Your task to perform on an android device: Go to Wikipedia Image 0: 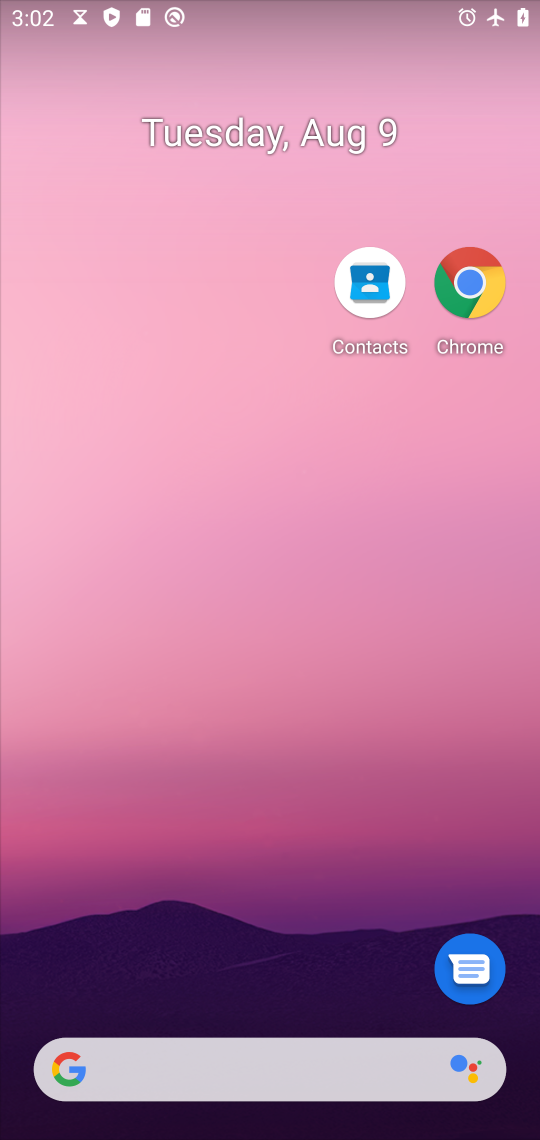
Step 0: drag from (271, 990) to (328, 412)
Your task to perform on an android device: Go to Wikipedia Image 1: 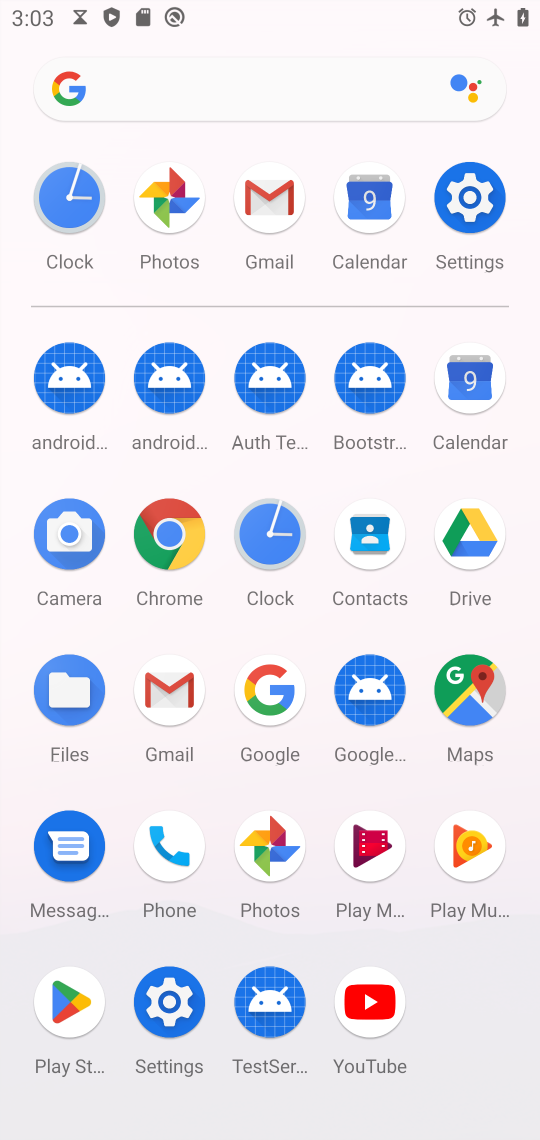
Step 1: drag from (228, 560) to (324, 3)
Your task to perform on an android device: Go to Wikipedia Image 2: 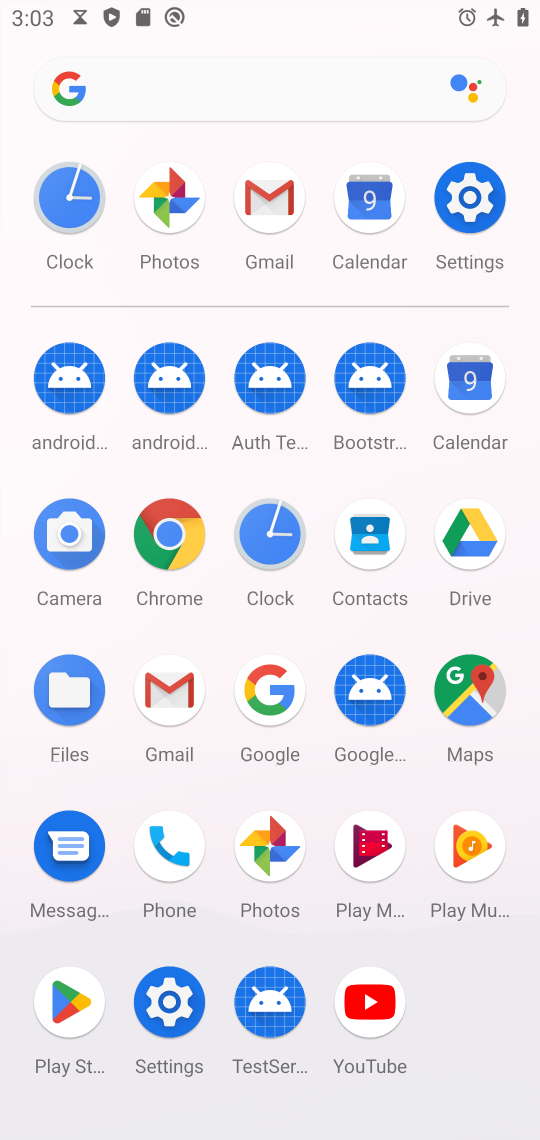
Step 2: click (152, 532)
Your task to perform on an android device: Go to Wikipedia Image 3: 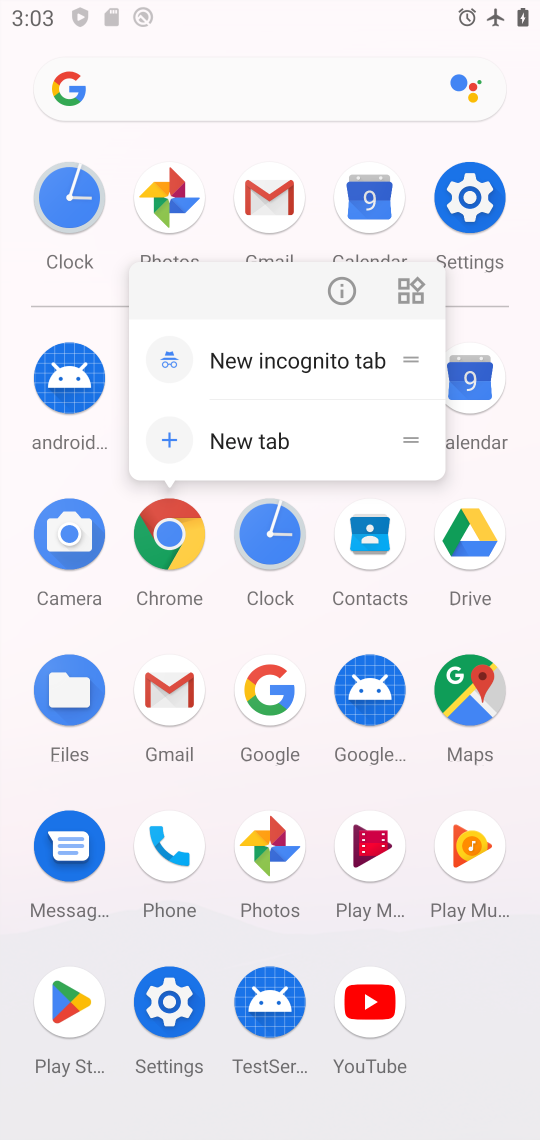
Step 3: click (345, 293)
Your task to perform on an android device: Go to Wikipedia Image 4: 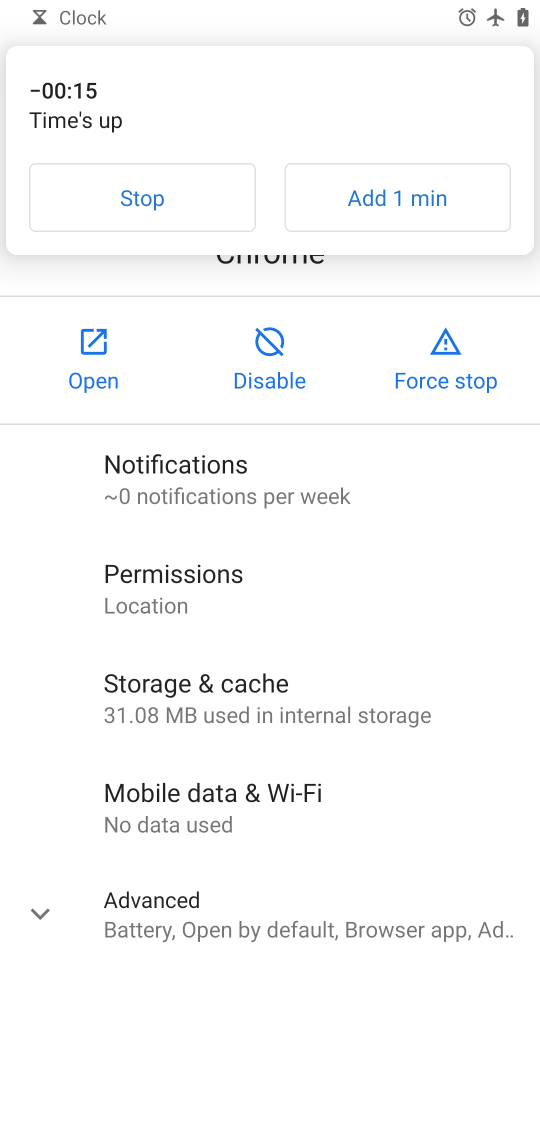
Step 4: click (193, 198)
Your task to perform on an android device: Go to Wikipedia Image 5: 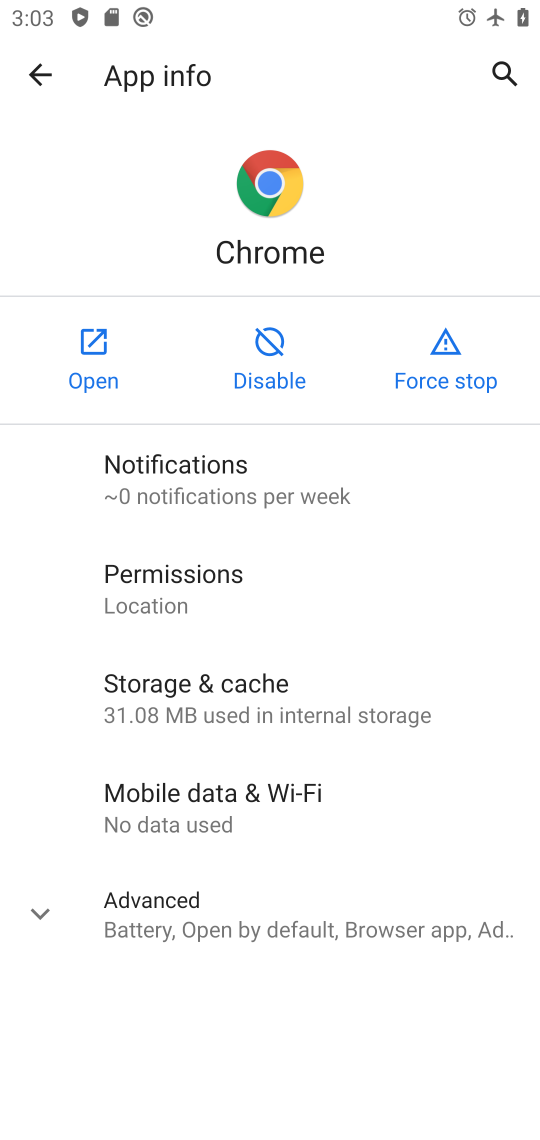
Step 5: click (106, 343)
Your task to perform on an android device: Go to Wikipedia Image 6: 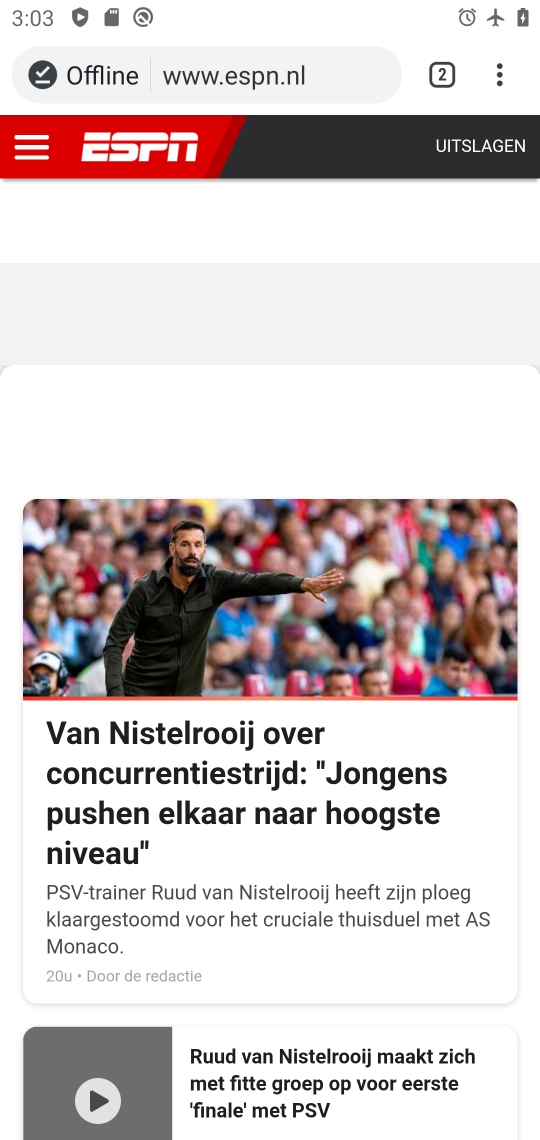
Step 6: click (290, 90)
Your task to perform on an android device: Go to Wikipedia Image 7: 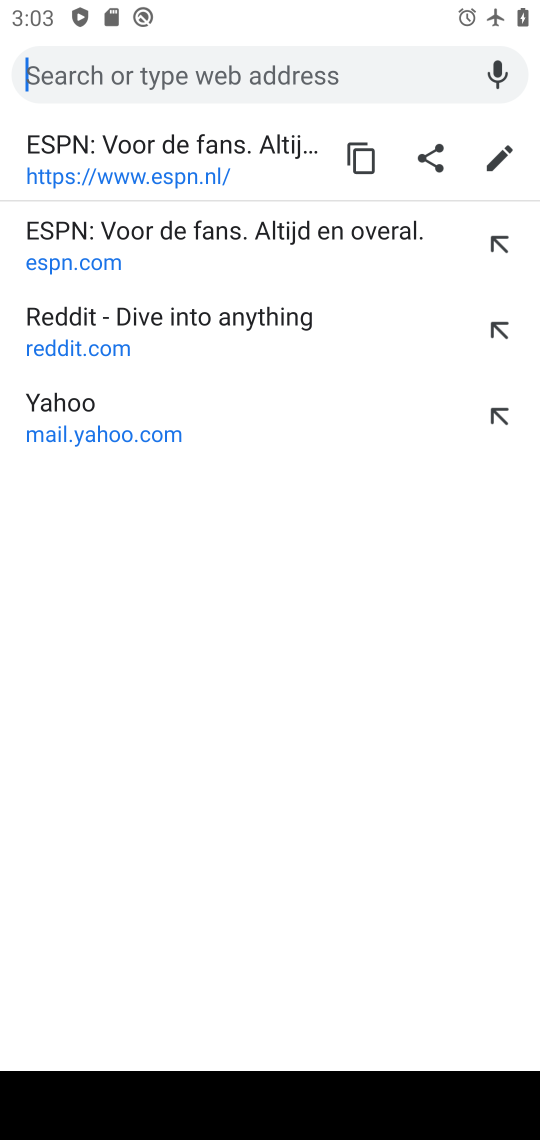
Step 7: type "Wikipedia"
Your task to perform on an android device: Go to Wikipedia Image 8: 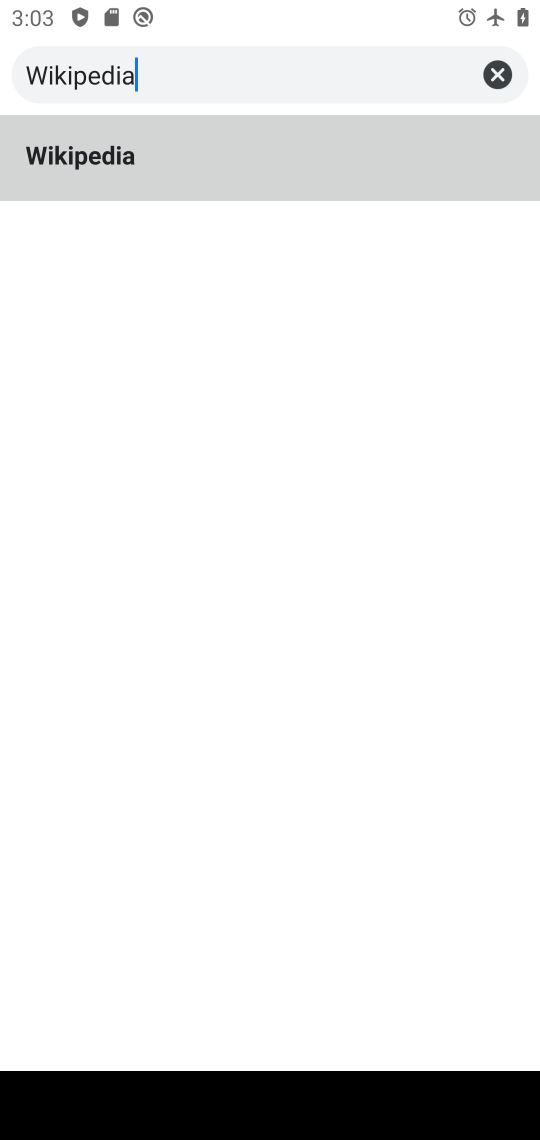
Step 8: type ""
Your task to perform on an android device: Go to Wikipedia Image 9: 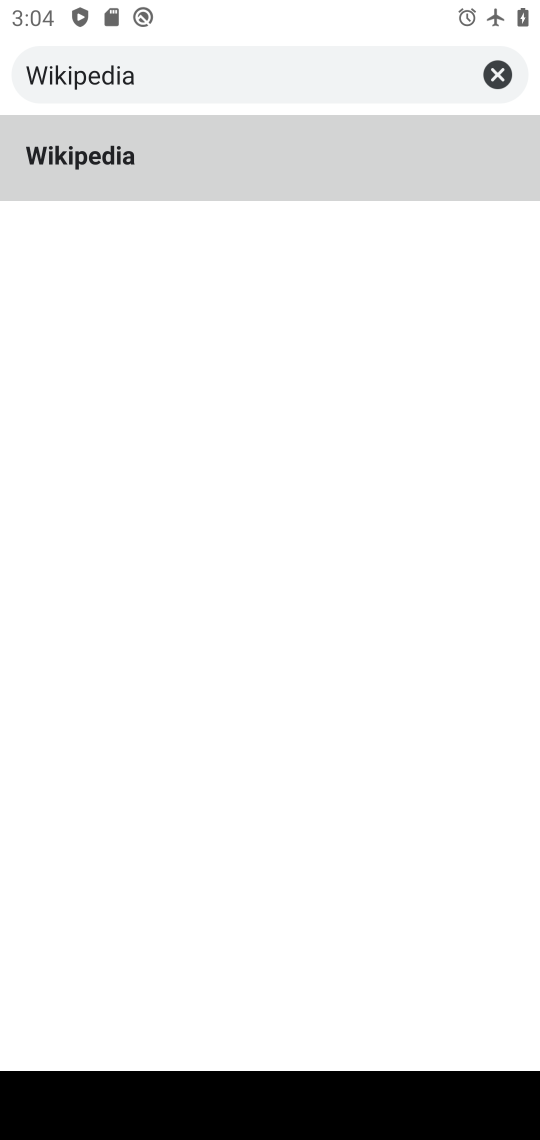
Step 9: click (97, 151)
Your task to perform on an android device: Go to Wikipedia Image 10: 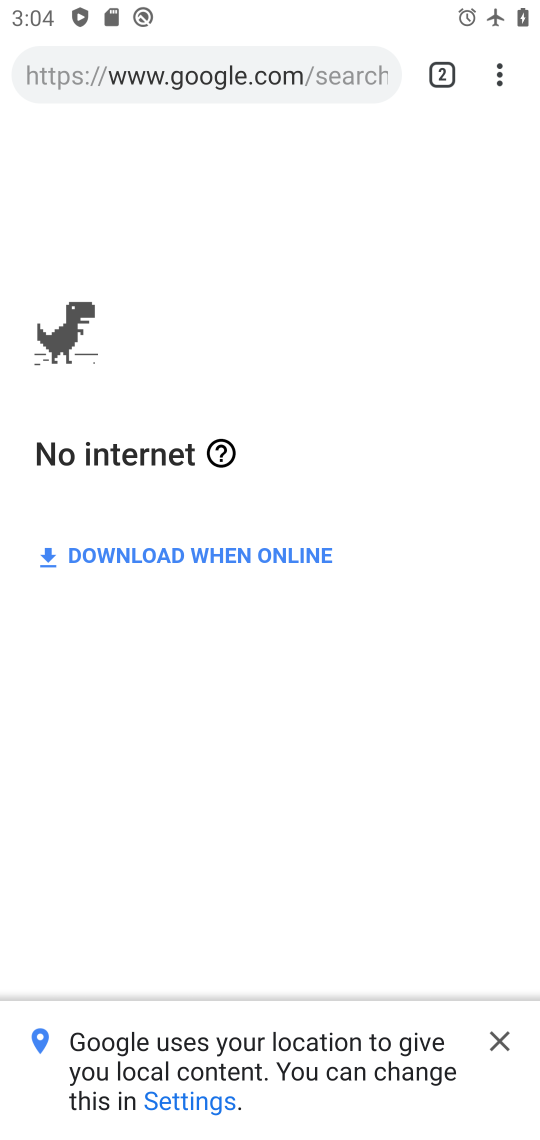
Step 10: click (228, 87)
Your task to perform on an android device: Go to Wikipedia Image 11: 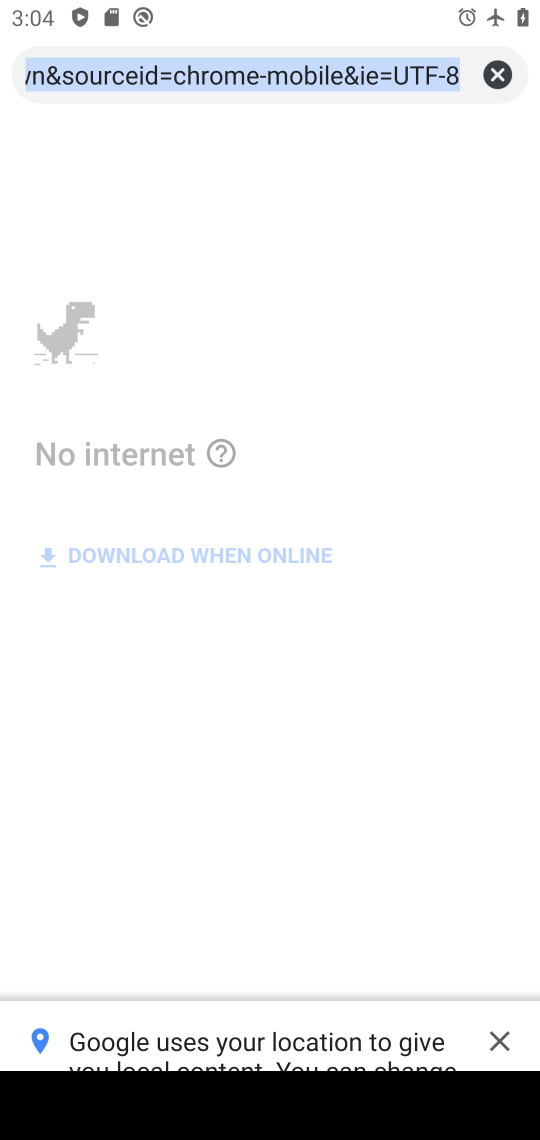
Step 11: click (502, 73)
Your task to perform on an android device: Go to Wikipedia Image 12: 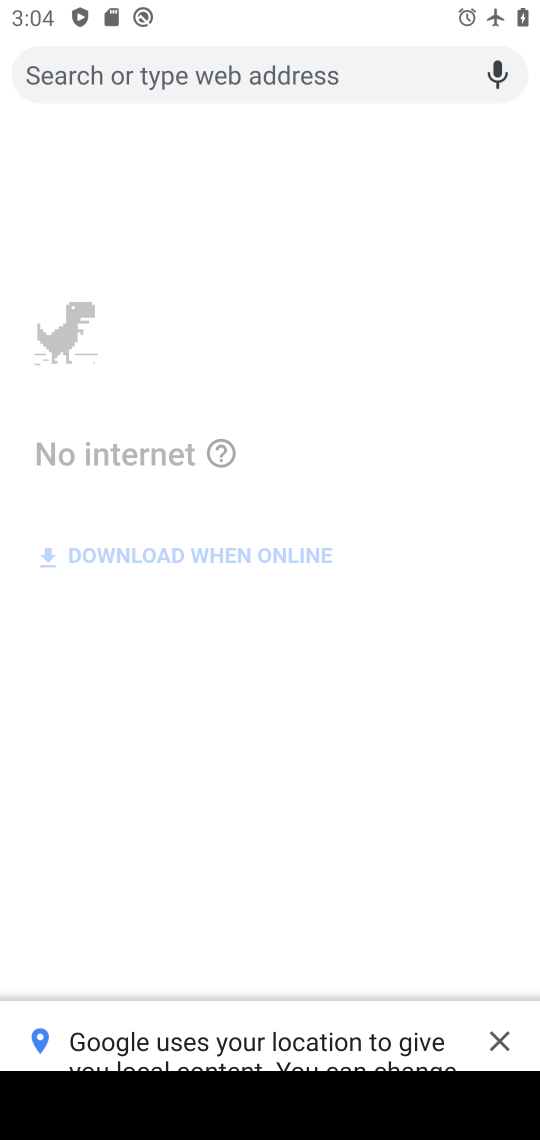
Step 12: type "wikipedia"
Your task to perform on an android device: Go to Wikipedia Image 13: 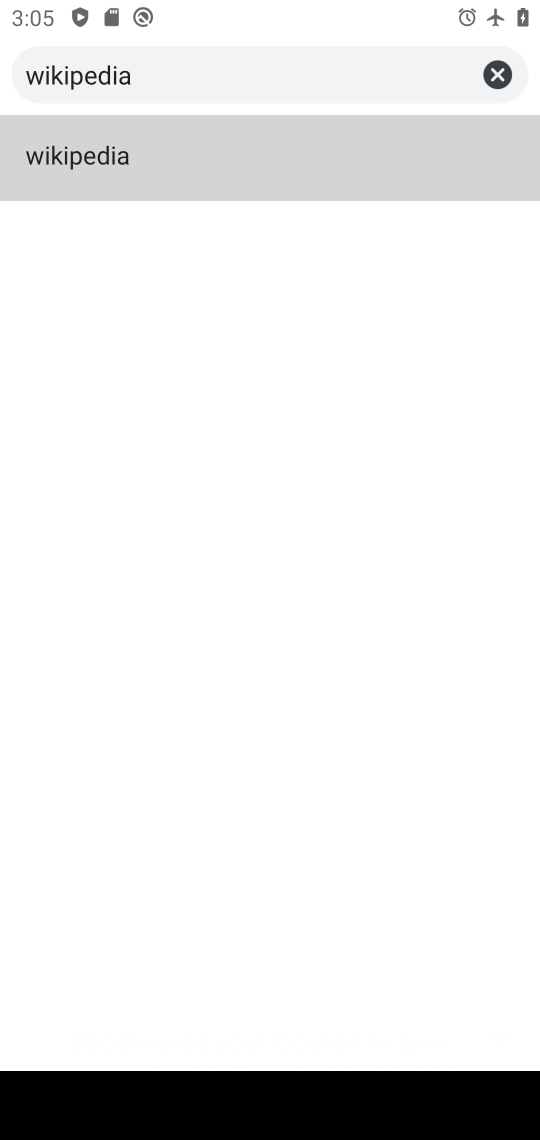
Step 13: click (73, 138)
Your task to perform on an android device: Go to Wikipedia Image 14: 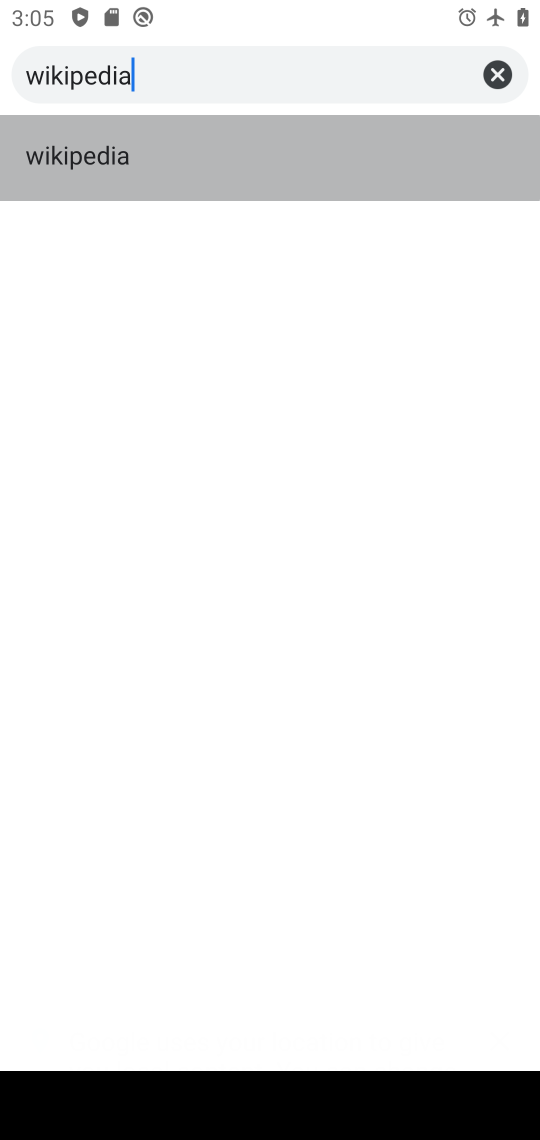
Step 14: task complete